Your task to perform on an android device: check the backup settings in the google photos Image 0: 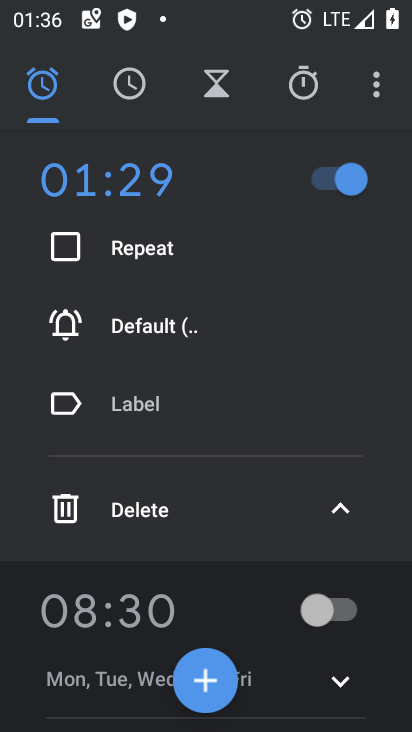
Step 0: press home button
Your task to perform on an android device: check the backup settings in the google photos Image 1: 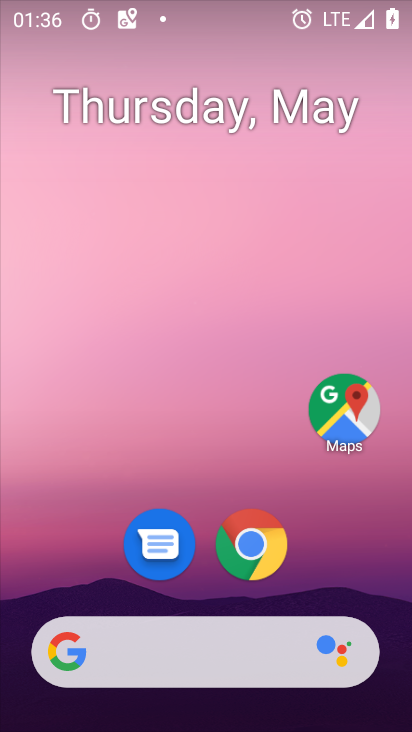
Step 1: drag from (379, 579) to (367, 171)
Your task to perform on an android device: check the backup settings in the google photos Image 2: 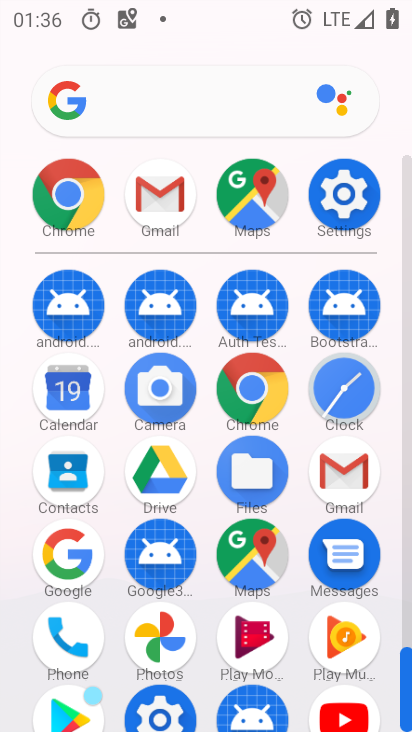
Step 2: click (159, 646)
Your task to perform on an android device: check the backup settings in the google photos Image 3: 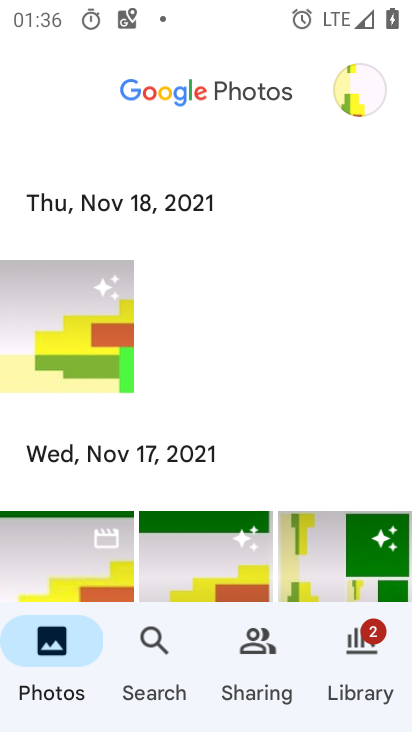
Step 3: click (358, 101)
Your task to perform on an android device: check the backup settings in the google photos Image 4: 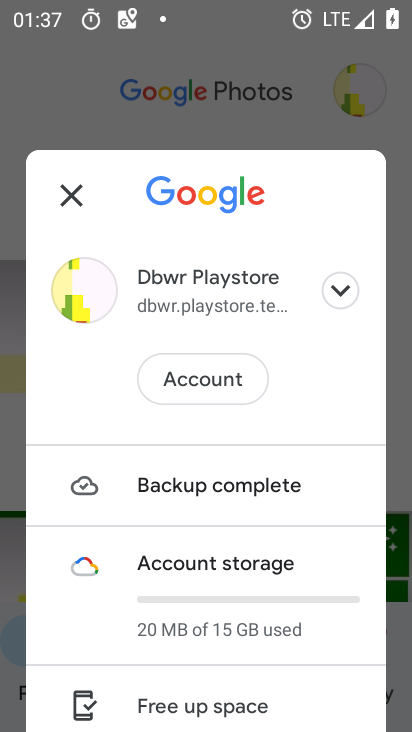
Step 4: drag from (310, 571) to (298, 425)
Your task to perform on an android device: check the backup settings in the google photos Image 5: 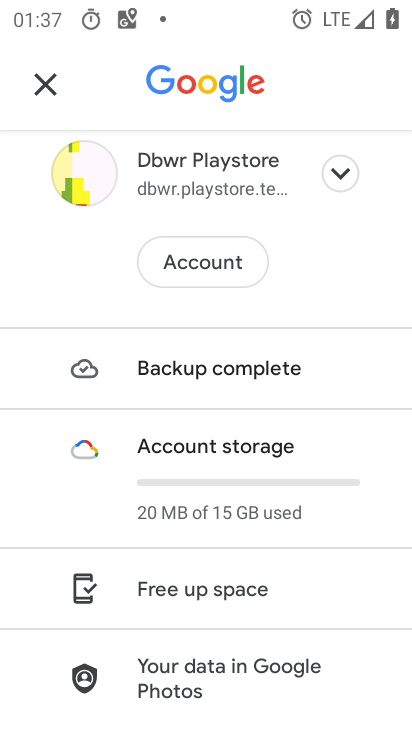
Step 5: drag from (324, 605) to (333, 389)
Your task to perform on an android device: check the backup settings in the google photos Image 6: 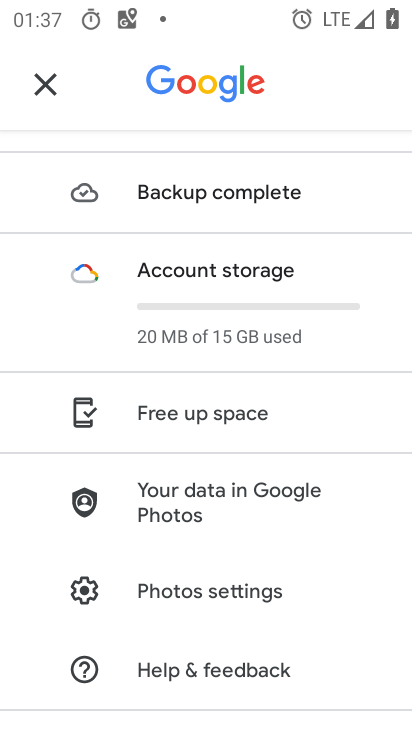
Step 6: drag from (337, 621) to (334, 457)
Your task to perform on an android device: check the backup settings in the google photos Image 7: 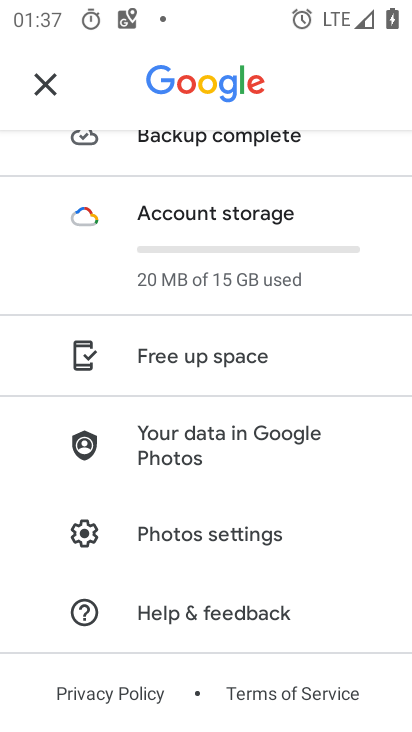
Step 7: click (241, 549)
Your task to perform on an android device: check the backup settings in the google photos Image 8: 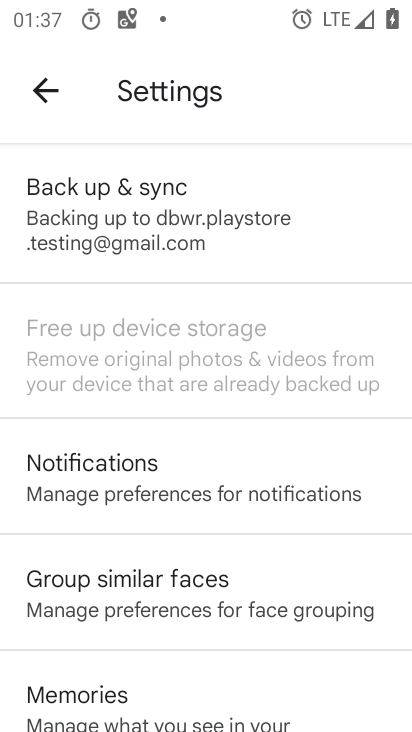
Step 8: drag from (236, 625) to (248, 399)
Your task to perform on an android device: check the backup settings in the google photos Image 9: 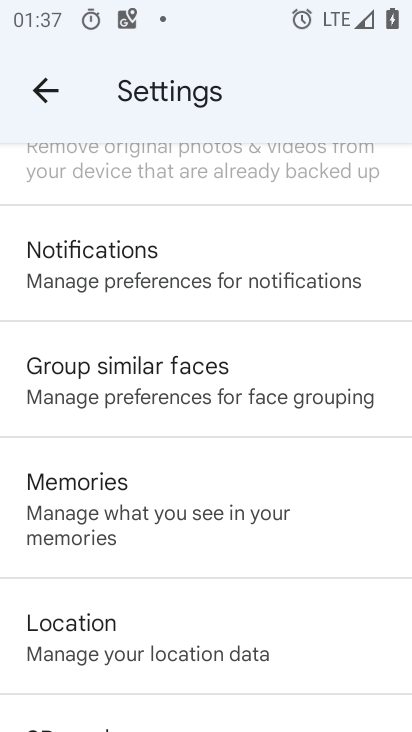
Step 9: click (288, 391)
Your task to perform on an android device: check the backup settings in the google photos Image 10: 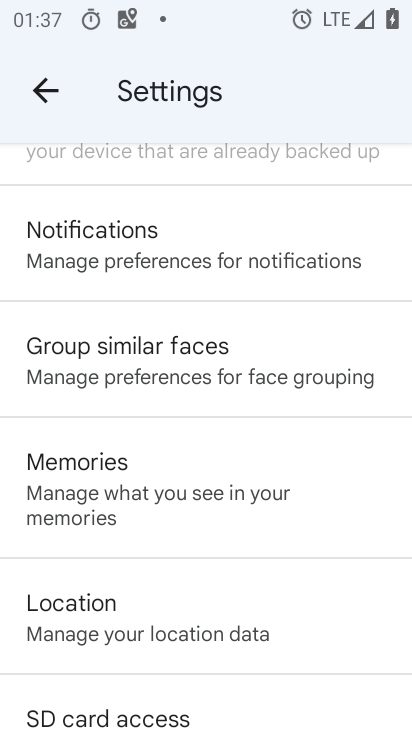
Step 10: drag from (320, 614) to (339, 464)
Your task to perform on an android device: check the backup settings in the google photos Image 11: 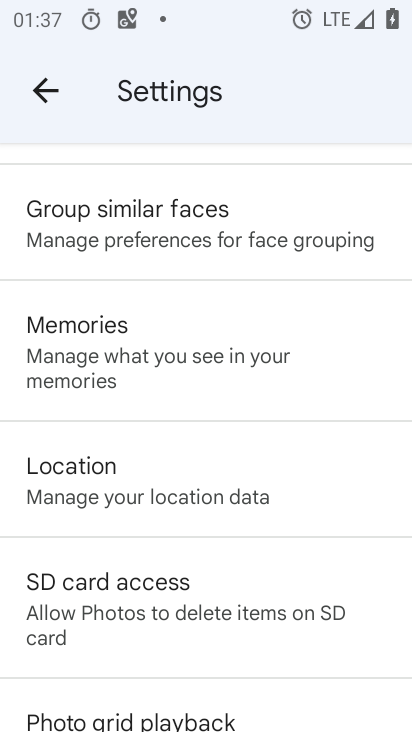
Step 11: drag from (345, 663) to (341, 557)
Your task to perform on an android device: check the backup settings in the google photos Image 12: 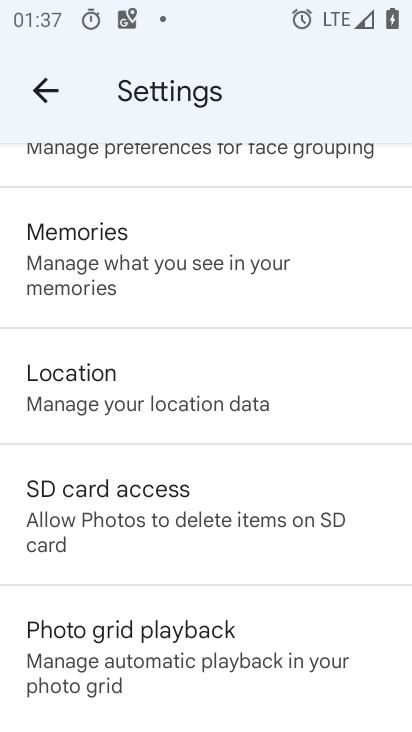
Step 12: drag from (332, 688) to (348, 457)
Your task to perform on an android device: check the backup settings in the google photos Image 13: 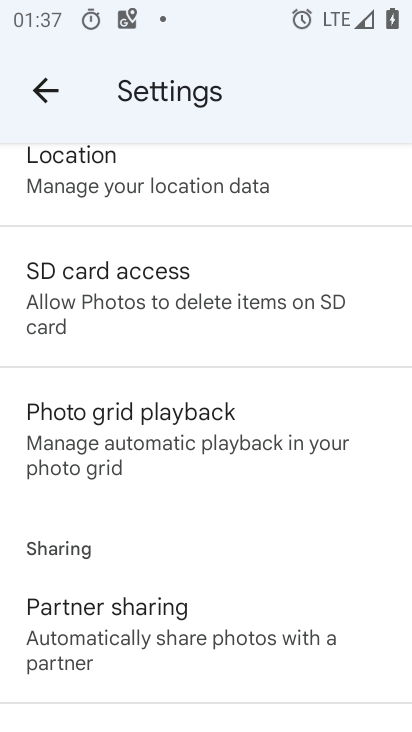
Step 13: drag from (343, 684) to (353, 476)
Your task to perform on an android device: check the backup settings in the google photos Image 14: 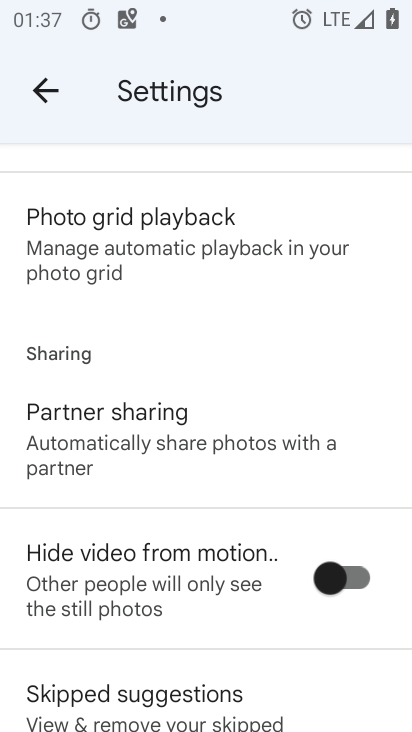
Step 14: drag from (334, 662) to (334, 480)
Your task to perform on an android device: check the backup settings in the google photos Image 15: 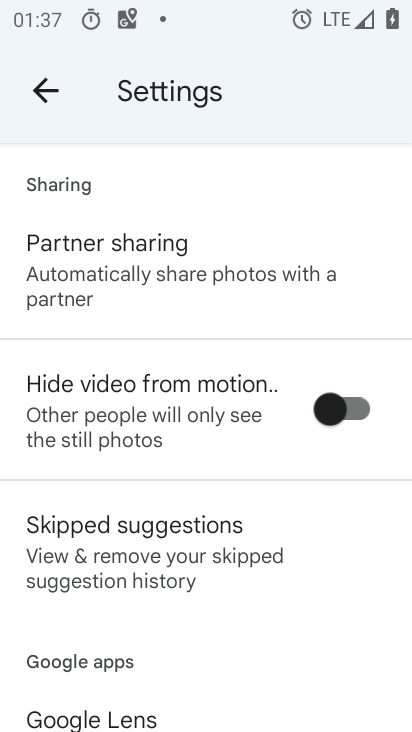
Step 15: drag from (295, 638) to (292, 537)
Your task to perform on an android device: check the backup settings in the google photos Image 16: 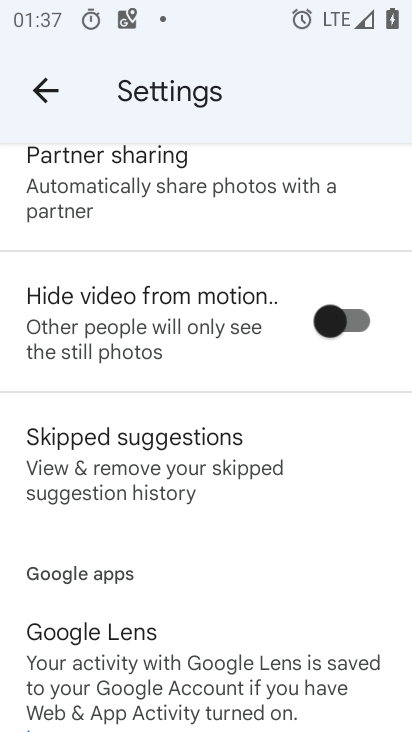
Step 16: drag from (291, 648) to (292, 466)
Your task to perform on an android device: check the backup settings in the google photos Image 17: 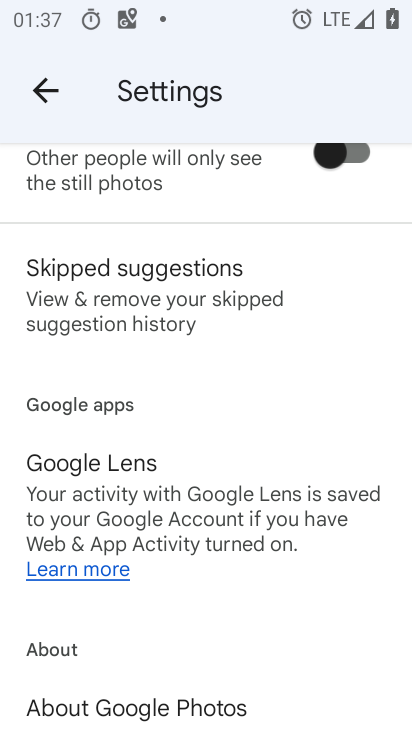
Step 17: drag from (315, 617) to (309, 392)
Your task to perform on an android device: check the backup settings in the google photos Image 18: 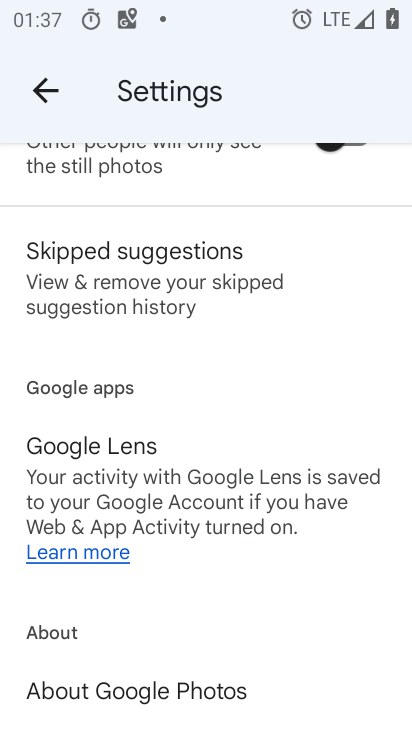
Step 18: drag from (317, 279) to (332, 527)
Your task to perform on an android device: check the backup settings in the google photos Image 19: 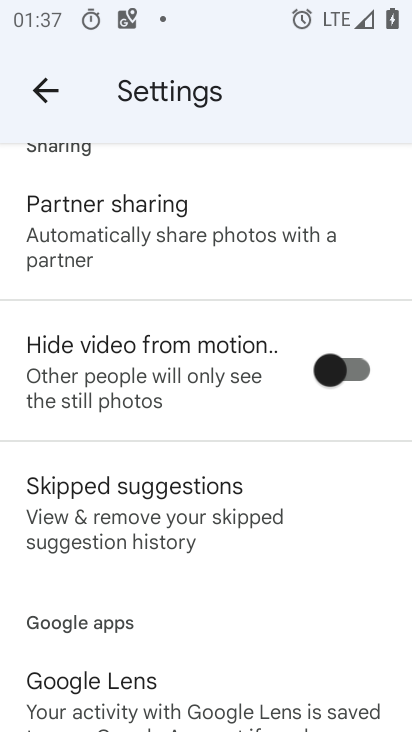
Step 19: drag from (302, 254) to (304, 466)
Your task to perform on an android device: check the backup settings in the google photos Image 20: 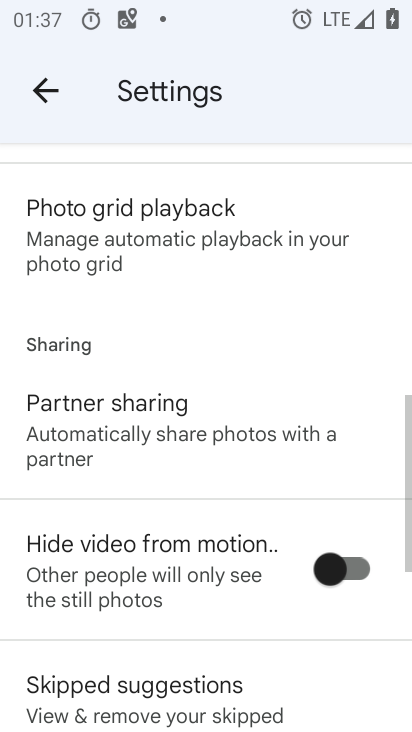
Step 20: drag from (288, 250) to (295, 434)
Your task to perform on an android device: check the backup settings in the google photos Image 21: 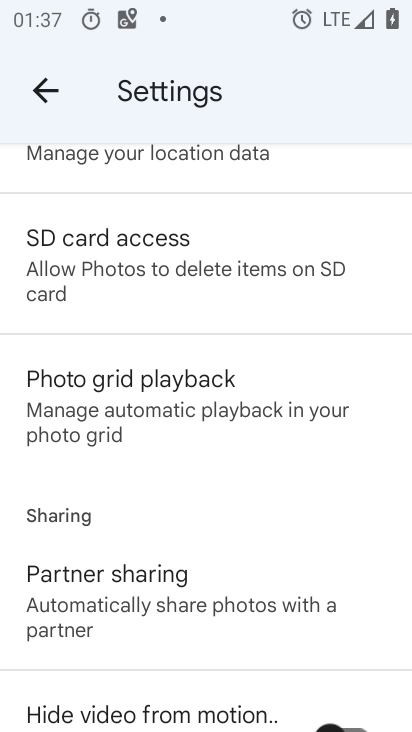
Step 21: drag from (307, 235) to (306, 474)
Your task to perform on an android device: check the backup settings in the google photos Image 22: 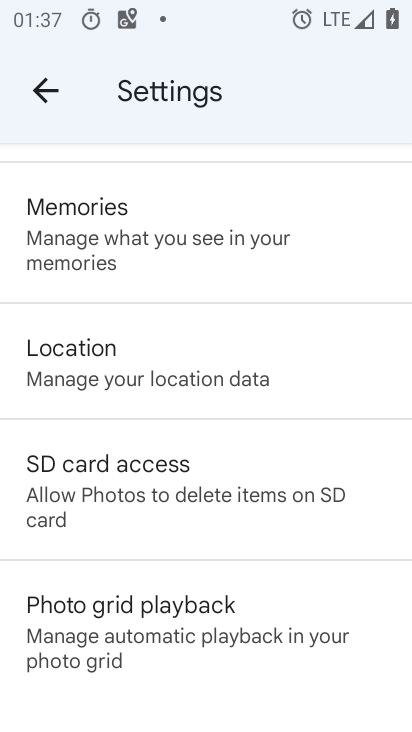
Step 22: drag from (309, 226) to (303, 508)
Your task to perform on an android device: check the backup settings in the google photos Image 23: 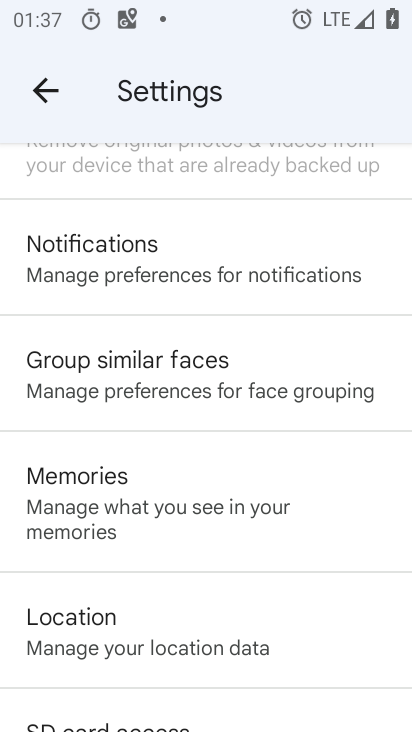
Step 23: drag from (281, 215) to (284, 463)
Your task to perform on an android device: check the backup settings in the google photos Image 24: 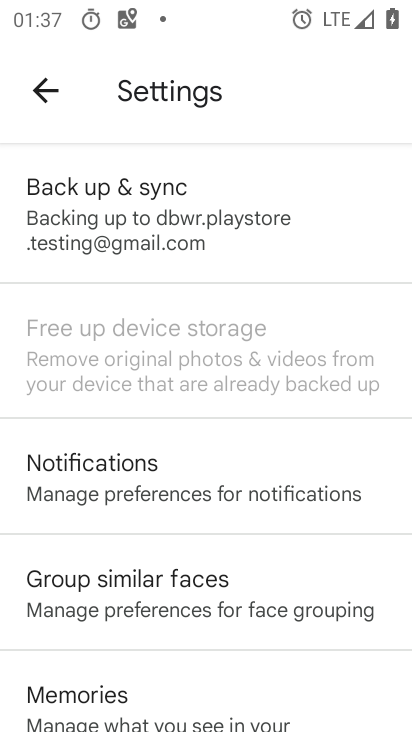
Step 24: click (198, 212)
Your task to perform on an android device: check the backup settings in the google photos Image 25: 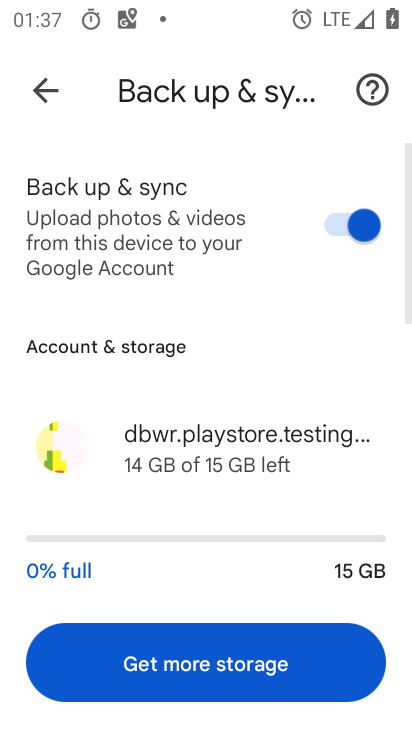
Step 25: task complete